Your task to perform on an android device: turn off improve location accuracy Image 0: 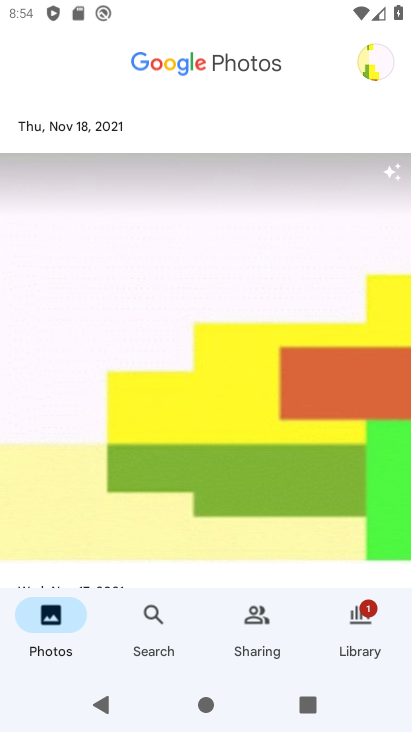
Step 0: press home button
Your task to perform on an android device: turn off improve location accuracy Image 1: 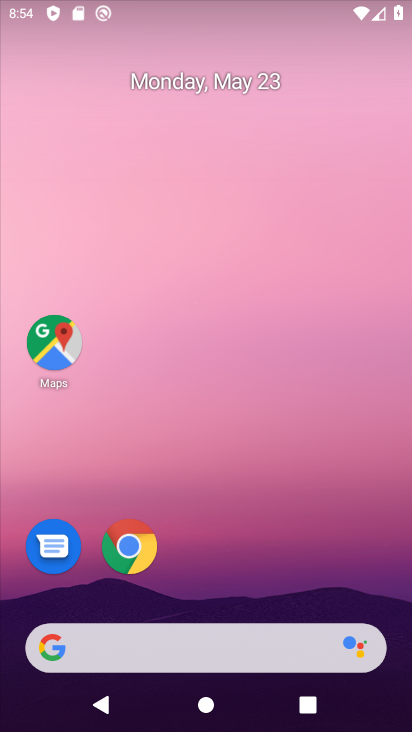
Step 1: drag from (223, 500) to (54, 80)
Your task to perform on an android device: turn off improve location accuracy Image 2: 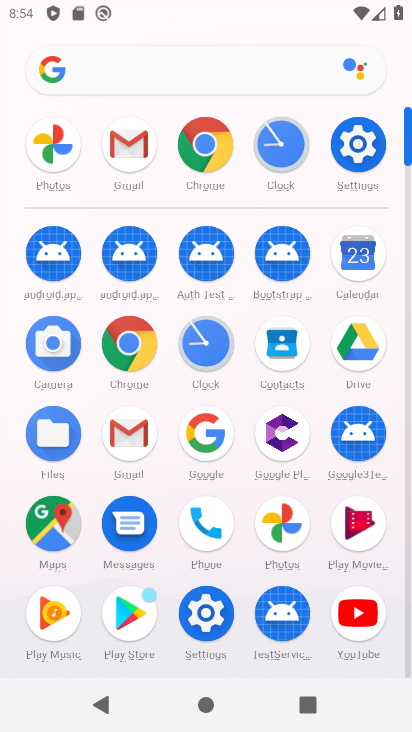
Step 2: click (356, 138)
Your task to perform on an android device: turn off improve location accuracy Image 3: 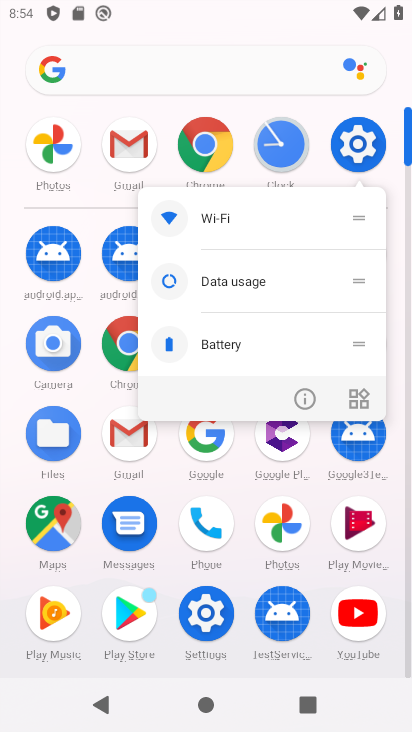
Step 3: click (356, 138)
Your task to perform on an android device: turn off improve location accuracy Image 4: 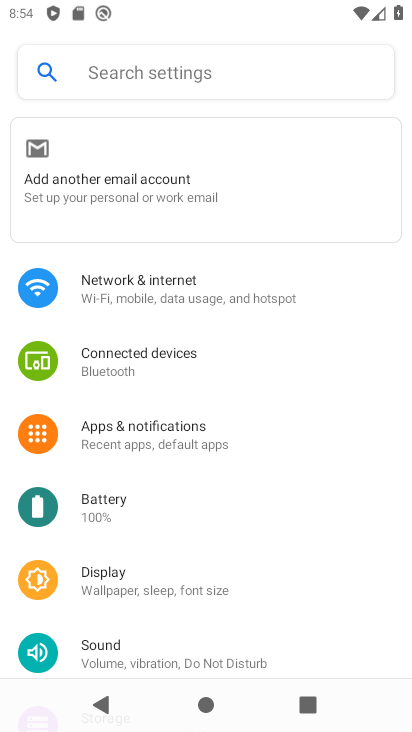
Step 4: drag from (245, 569) to (212, 172)
Your task to perform on an android device: turn off improve location accuracy Image 5: 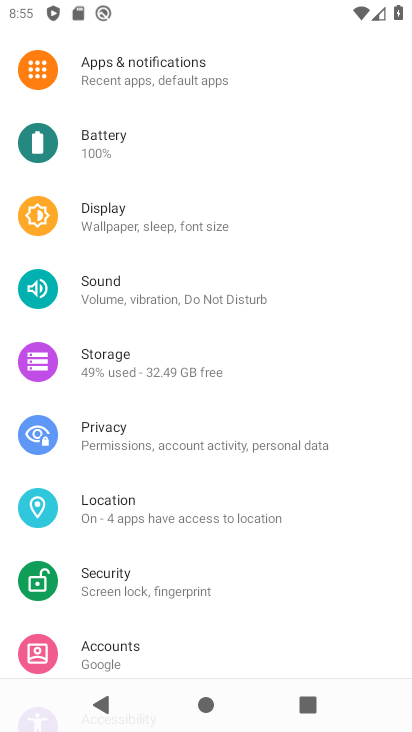
Step 5: drag from (245, 497) to (237, 216)
Your task to perform on an android device: turn off improve location accuracy Image 6: 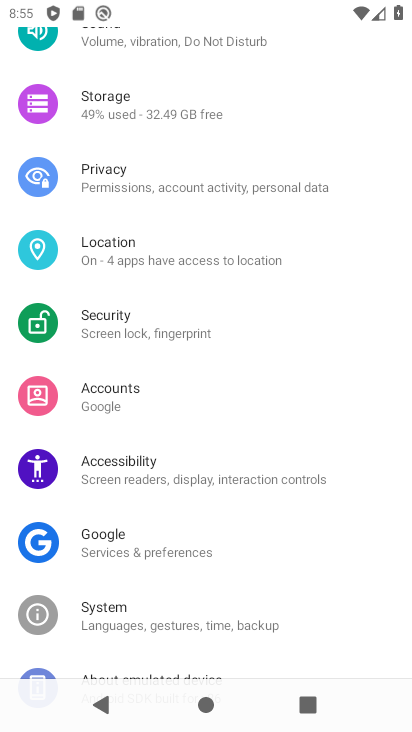
Step 6: click (193, 243)
Your task to perform on an android device: turn off improve location accuracy Image 7: 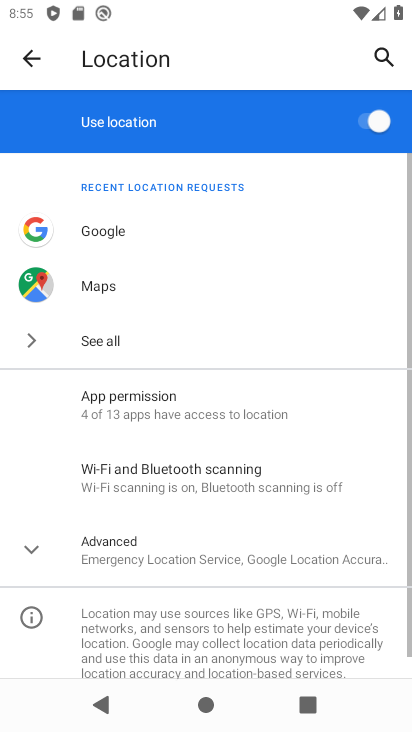
Step 7: click (227, 561)
Your task to perform on an android device: turn off improve location accuracy Image 8: 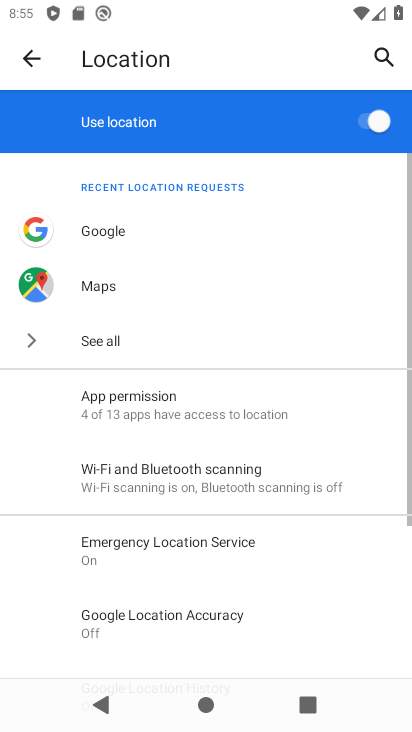
Step 8: drag from (227, 558) to (213, 209)
Your task to perform on an android device: turn off improve location accuracy Image 9: 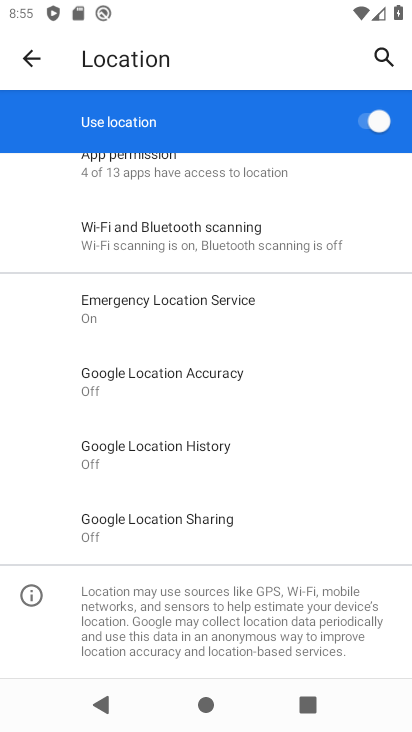
Step 9: click (193, 387)
Your task to perform on an android device: turn off improve location accuracy Image 10: 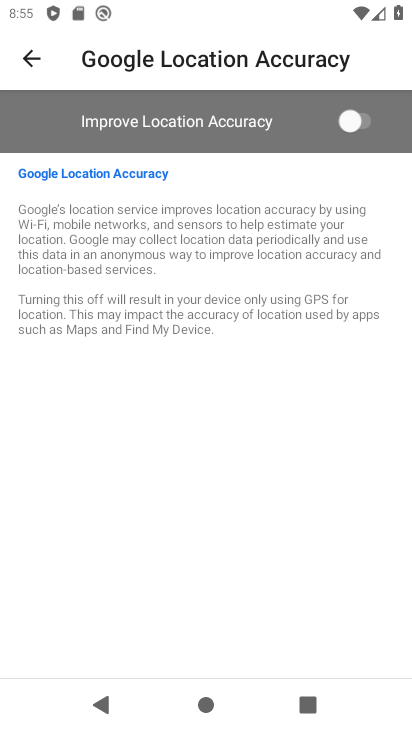
Step 10: task complete